Your task to perform on an android device: Search for "razer kraken" on newegg, select the first entry, and add it to the cart. Image 0: 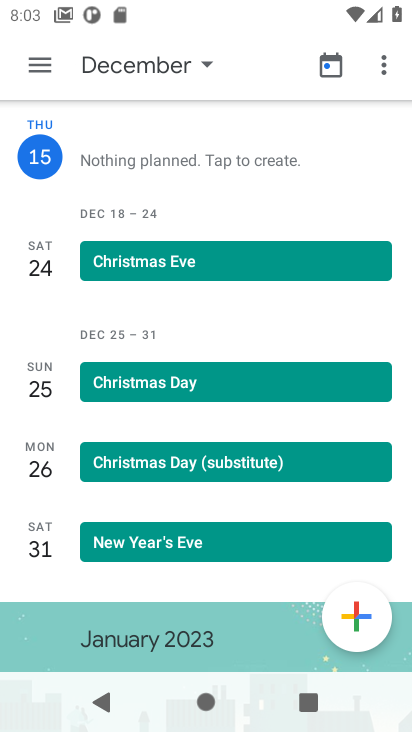
Step 0: press home button
Your task to perform on an android device: Search for "razer kraken" on newegg, select the first entry, and add it to the cart. Image 1: 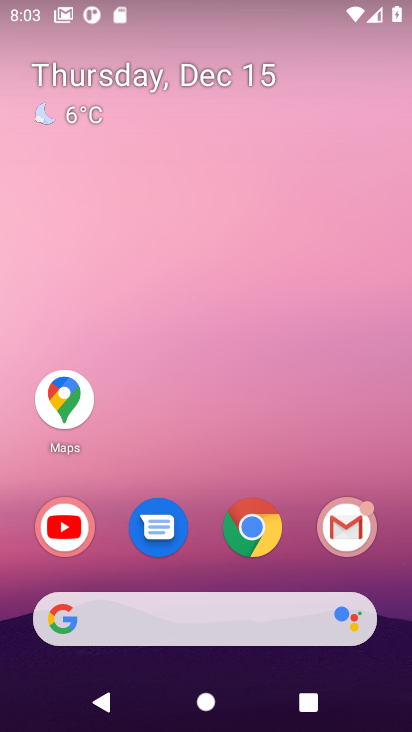
Step 1: click (257, 541)
Your task to perform on an android device: Search for "razer kraken" on newegg, select the first entry, and add it to the cart. Image 2: 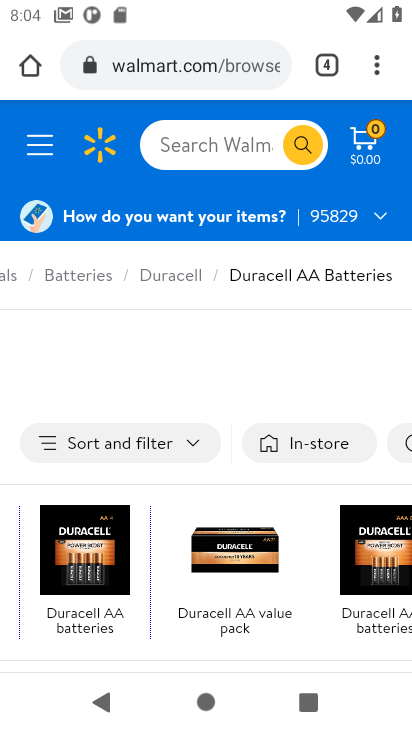
Step 2: click (147, 82)
Your task to perform on an android device: Search for "razer kraken" on newegg, select the first entry, and add it to the cart. Image 3: 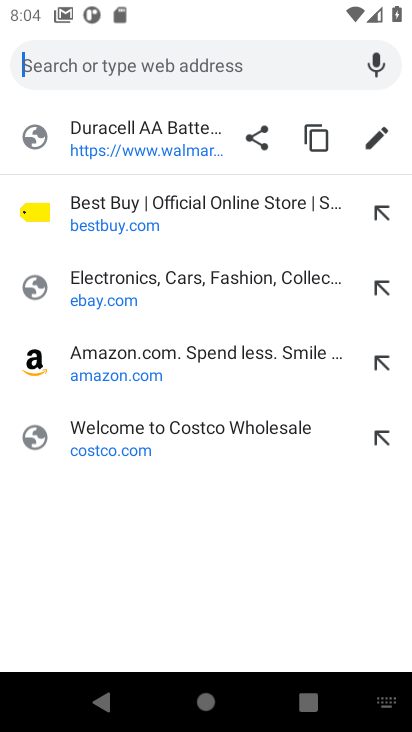
Step 3: type "newegg"
Your task to perform on an android device: Search for "razer kraken" on newegg, select the first entry, and add it to the cart. Image 4: 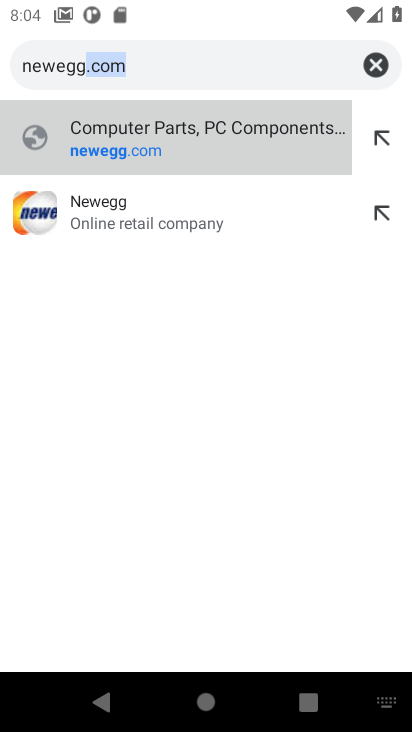
Step 4: click (90, 156)
Your task to perform on an android device: Search for "razer kraken" on newegg, select the first entry, and add it to the cart. Image 5: 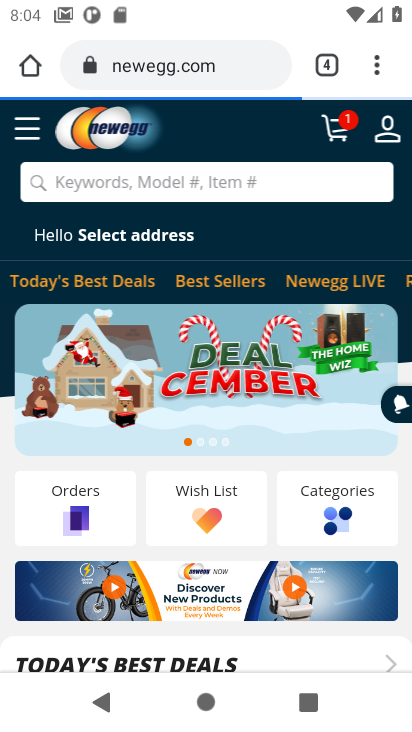
Step 5: click (137, 187)
Your task to perform on an android device: Search for "razer kraken" on newegg, select the first entry, and add it to the cart. Image 6: 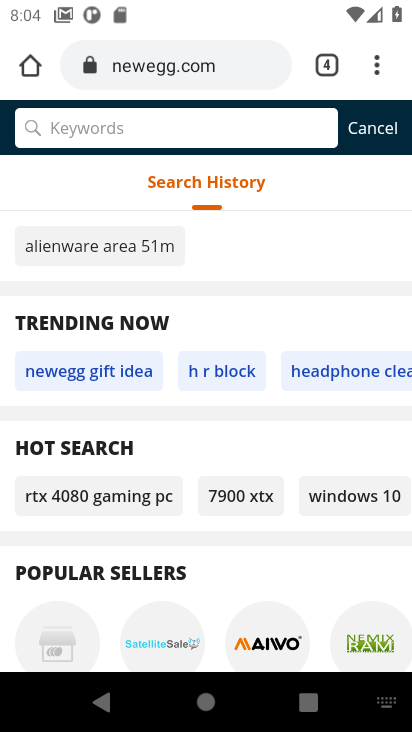
Step 6: type "razer karken"
Your task to perform on an android device: Search for "razer kraken" on newegg, select the first entry, and add it to the cart. Image 7: 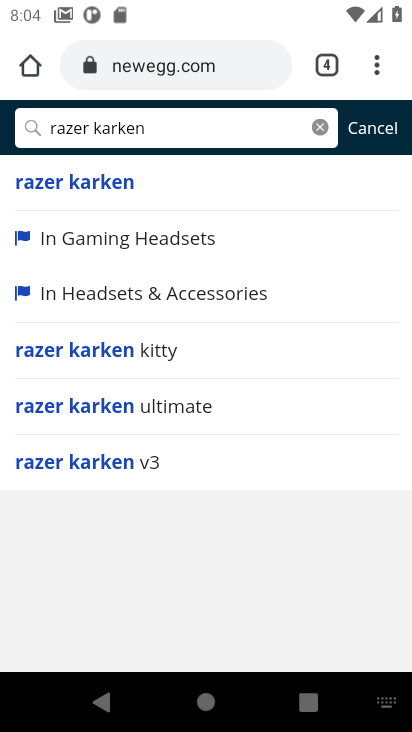
Step 7: click (109, 189)
Your task to perform on an android device: Search for "razer kraken" on newegg, select the first entry, and add it to the cart. Image 8: 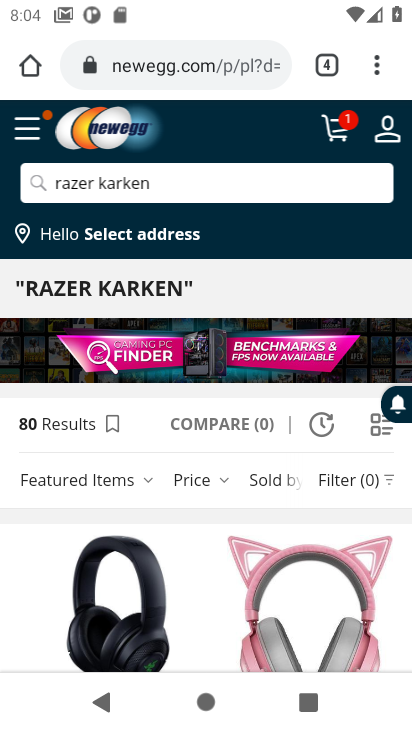
Step 8: click (140, 607)
Your task to perform on an android device: Search for "razer kraken" on newegg, select the first entry, and add it to the cart. Image 9: 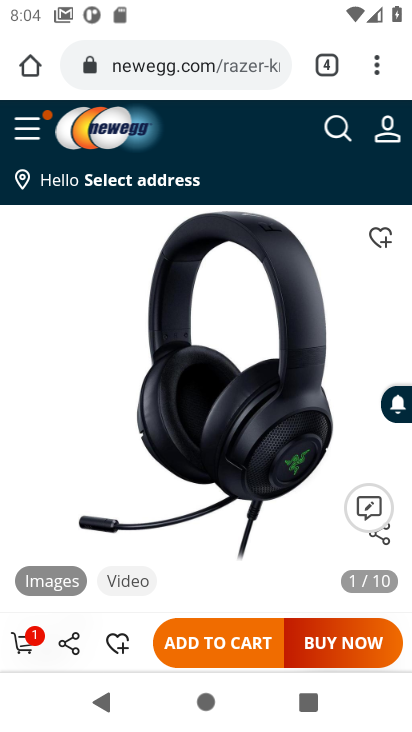
Step 9: click (213, 646)
Your task to perform on an android device: Search for "razer kraken" on newegg, select the first entry, and add it to the cart. Image 10: 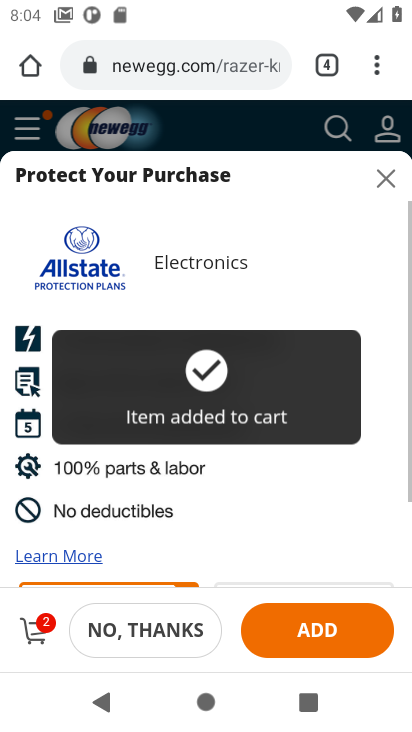
Step 10: task complete